Your task to perform on an android device: turn on showing notifications on the lock screen Image 0: 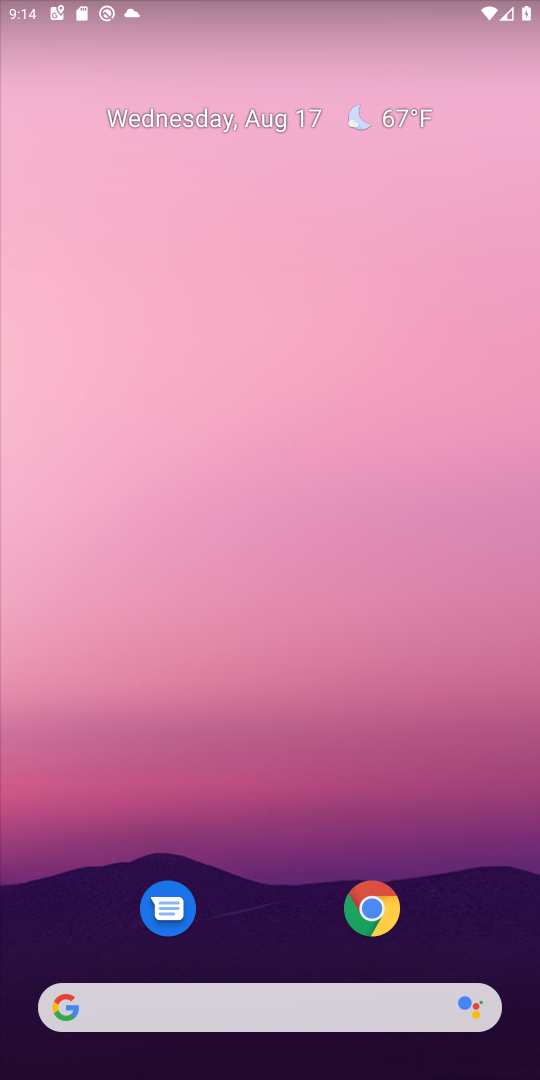
Step 0: drag from (256, 920) to (268, 51)
Your task to perform on an android device: turn on showing notifications on the lock screen Image 1: 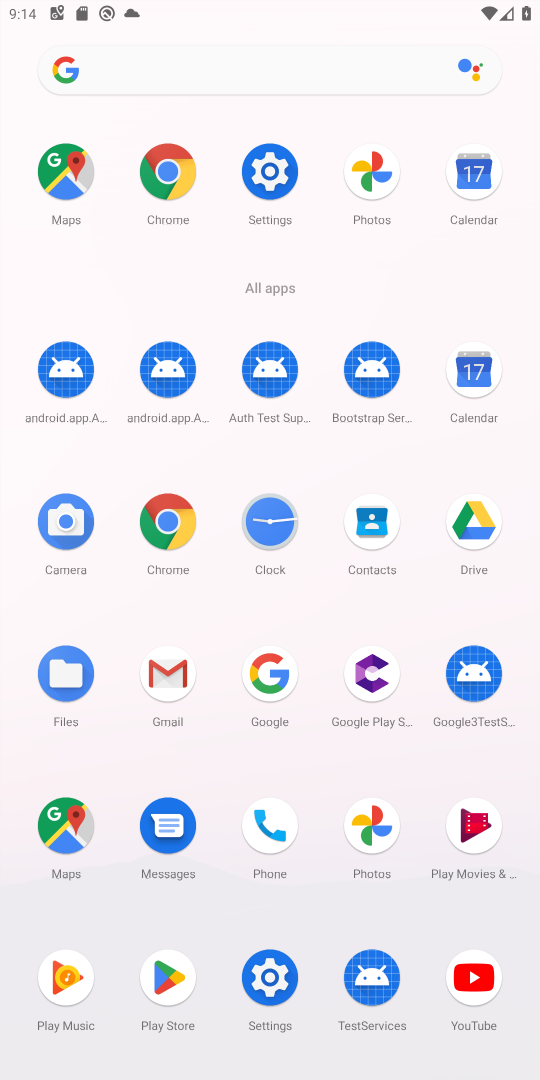
Step 1: click (281, 980)
Your task to perform on an android device: turn on showing notifications on the lock screen Image 2: 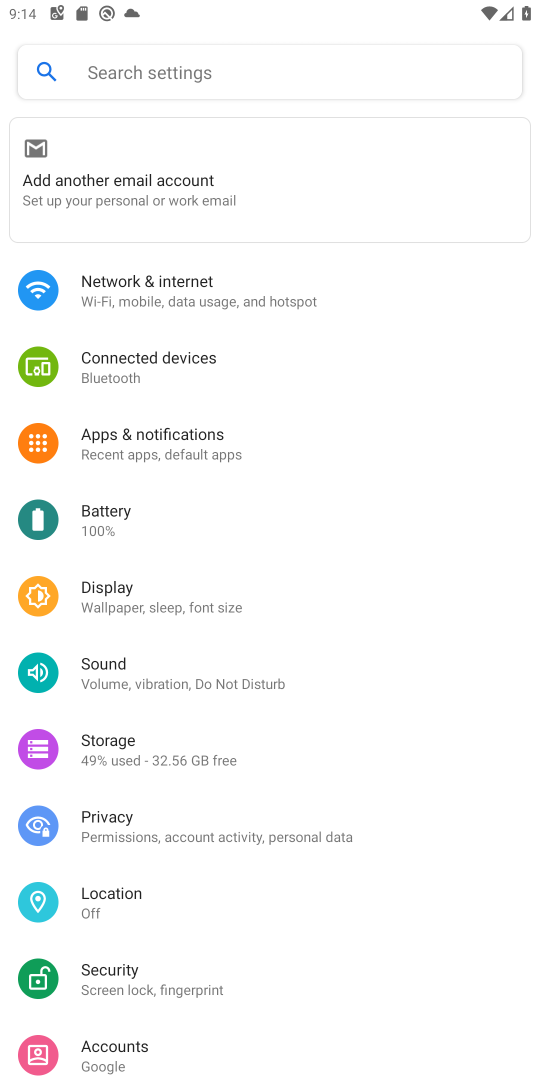
Step 2: click (172, 431)
Your task to perform on an android device: turn on showing notifications on the lock screen Image 3: 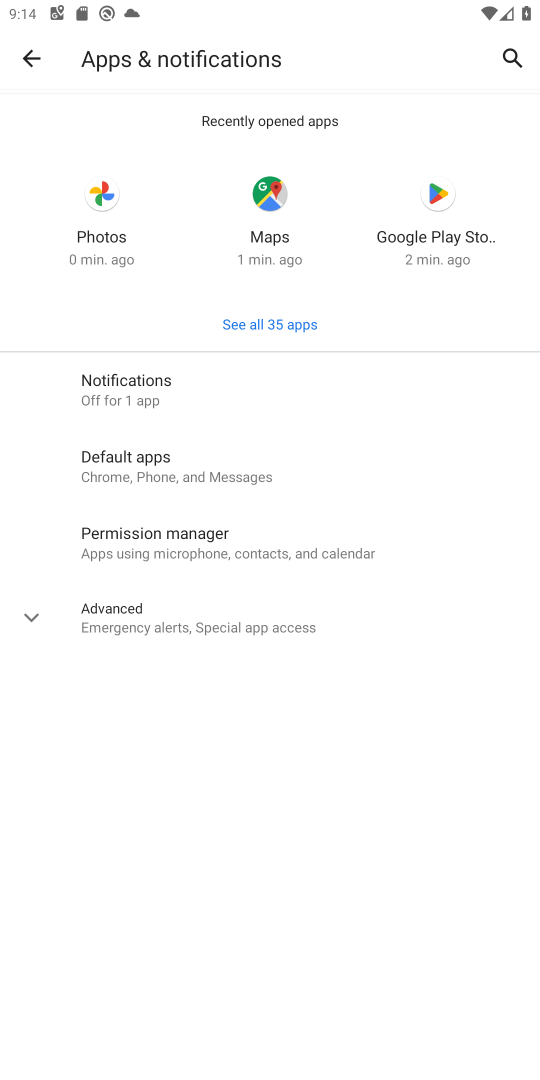
Step 3: click (144, 389)
Your task to perform on an android device: turn on showing notifications on the lock screen Image 4: 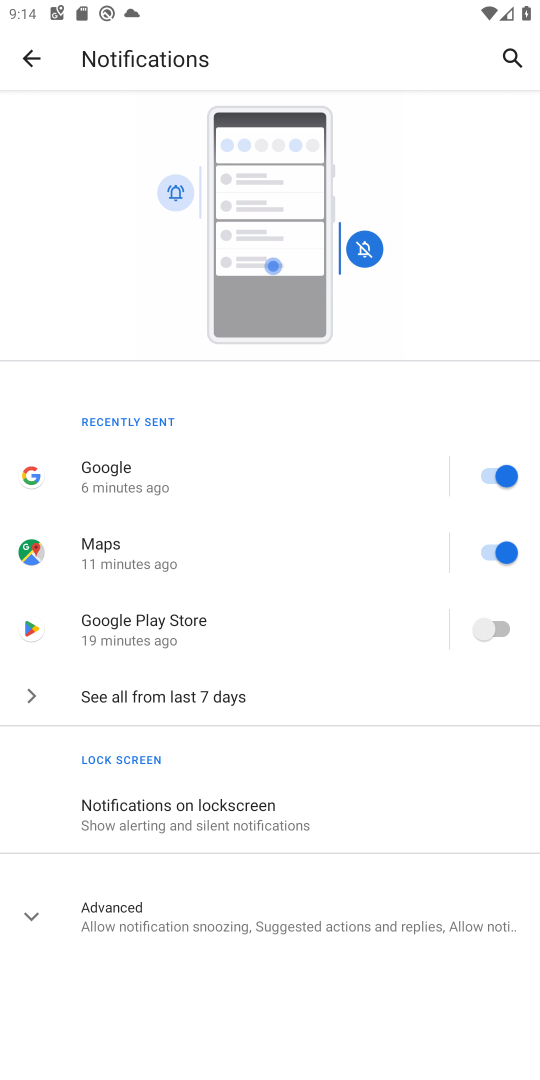
Step 4: click (201, 804)
Your task to perform on an android device: turn on showing notifications on the lock screen Image 5: 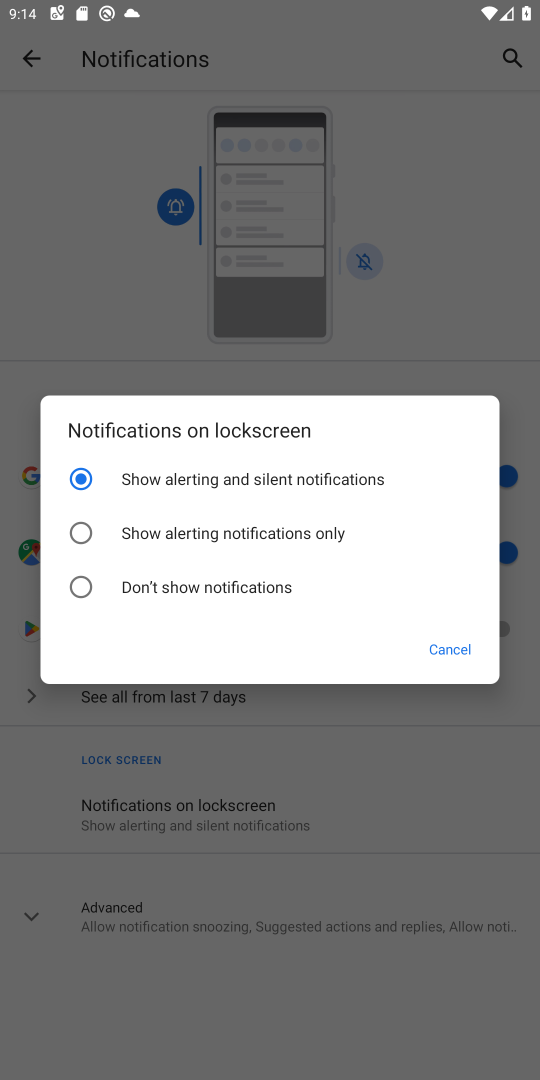
Step 5: task complete